Your task to perform on an android device: read, delete, or share a saved page in the chrome app Image 0: 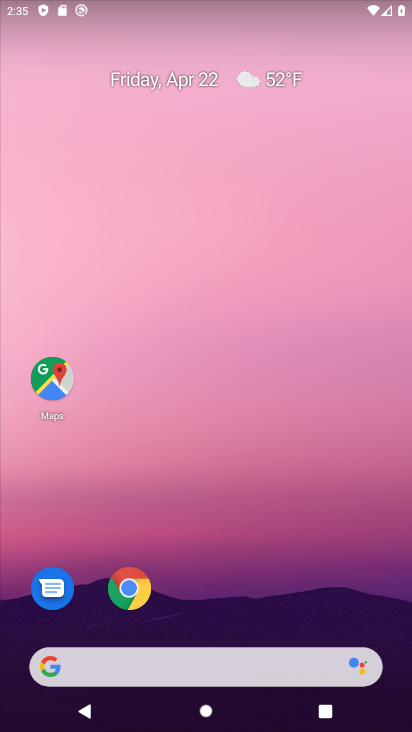
Step 0: click (134, 597)
Your task to perform on an android device: read, delete, or share a saved page in the chrome app Image 1: 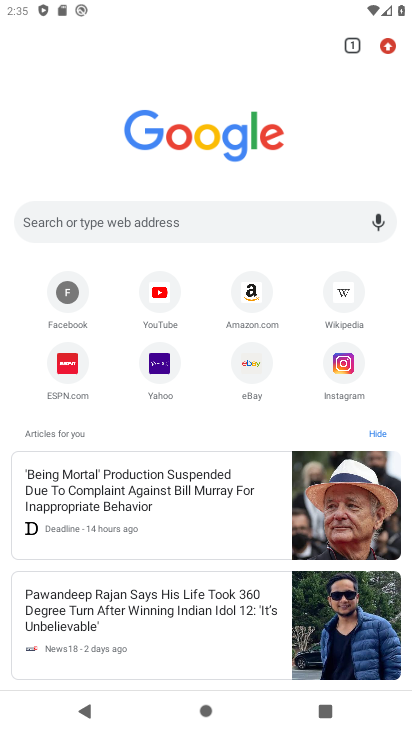
Step 1: click (384, 50)
Your task to perform on an android device: read, delete, or share a saved page in the chrome app Image 2: 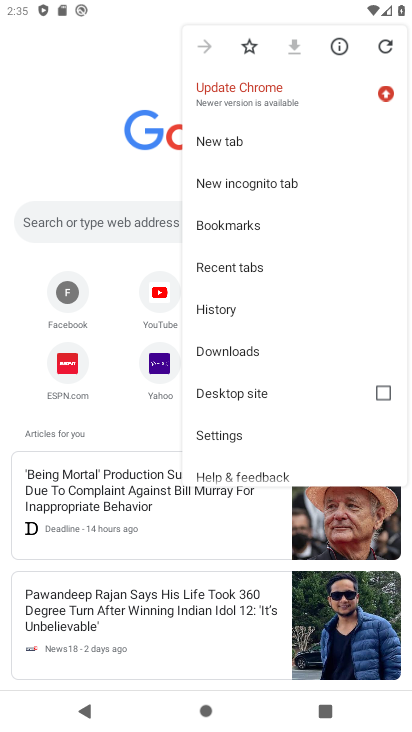
Step 2: click (217, 355)
Your task to perform on an android device: read, delete, or share a saved page in the chrome app Image 3: 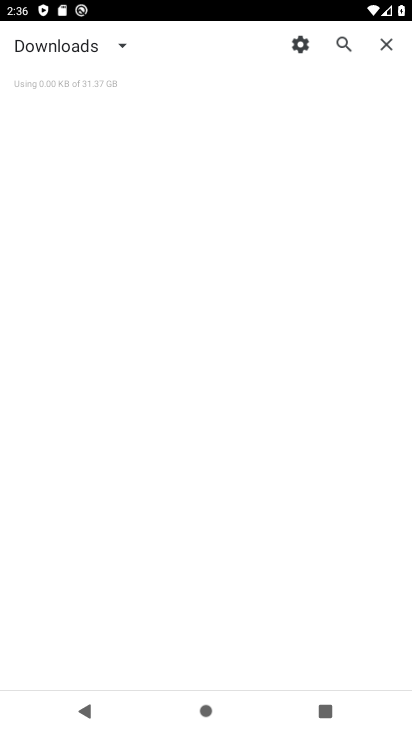
Step 3: click (118, 45)
Your task to perform on an android device: read, delete, or share a saved page in the chrome app Image 4: 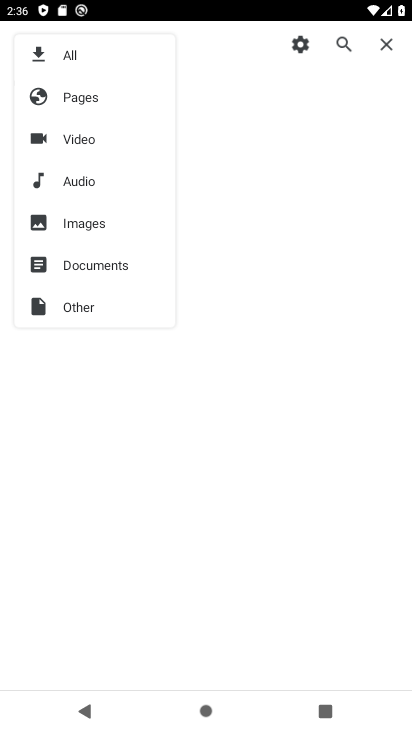
Step 4: click (83, 81)
Your task to perform on an android device: read, delete, or share a saved page in the chrome app Image 5: 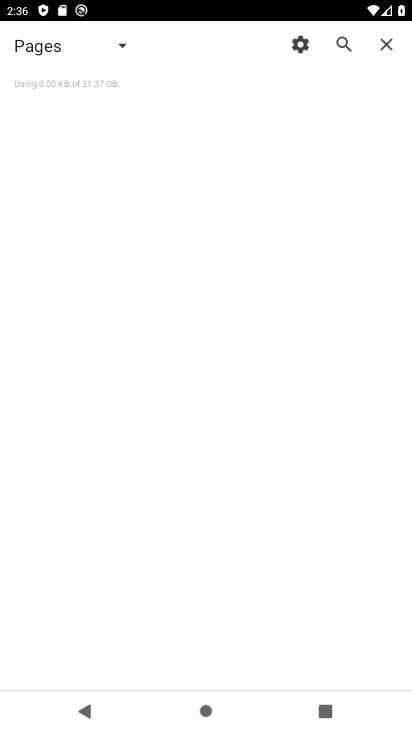
Step 5: task complete